Your task to perform on an android device: Nike Air Max 2020 shoes on Nike.com Image 0: 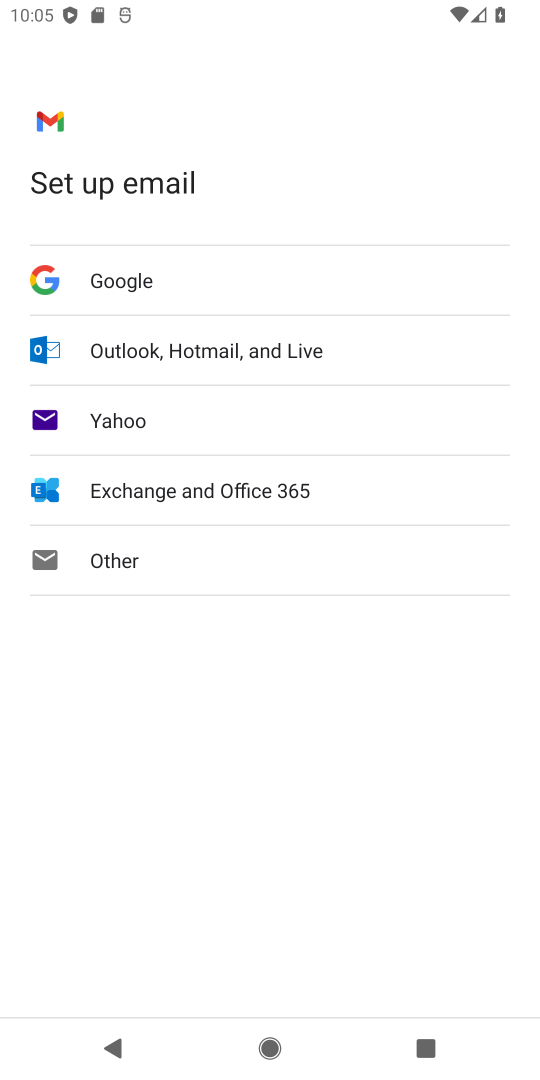
Step 0: press home button
Your task to perform on an android device: Nike Air Max 2020 shoes on Nike.com Image 1: 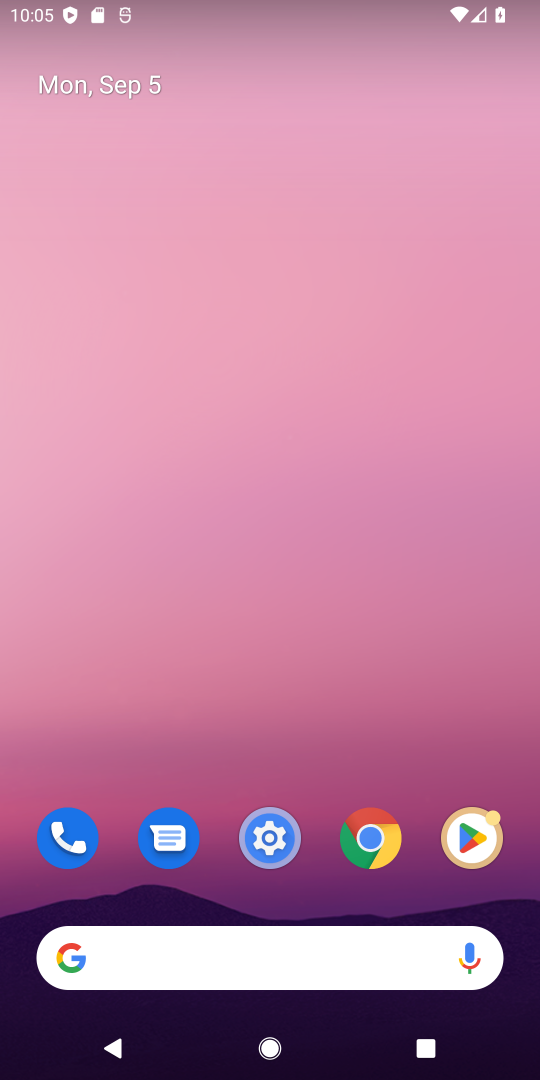
Step 1: click (248, 957)
Your task to perform on an android device: Nike Air Max 2020 shoes on Nike.com Image 2: 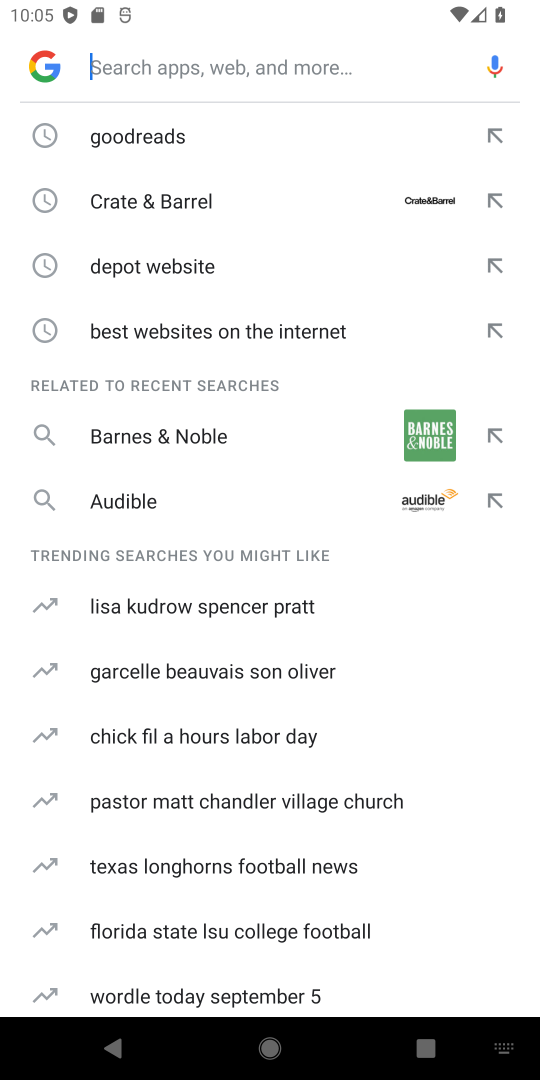
Step 2: type "Nike.com"
Your task to perform on an android device: Nike Air Max 2020 shoes on Nike.com Image 3: 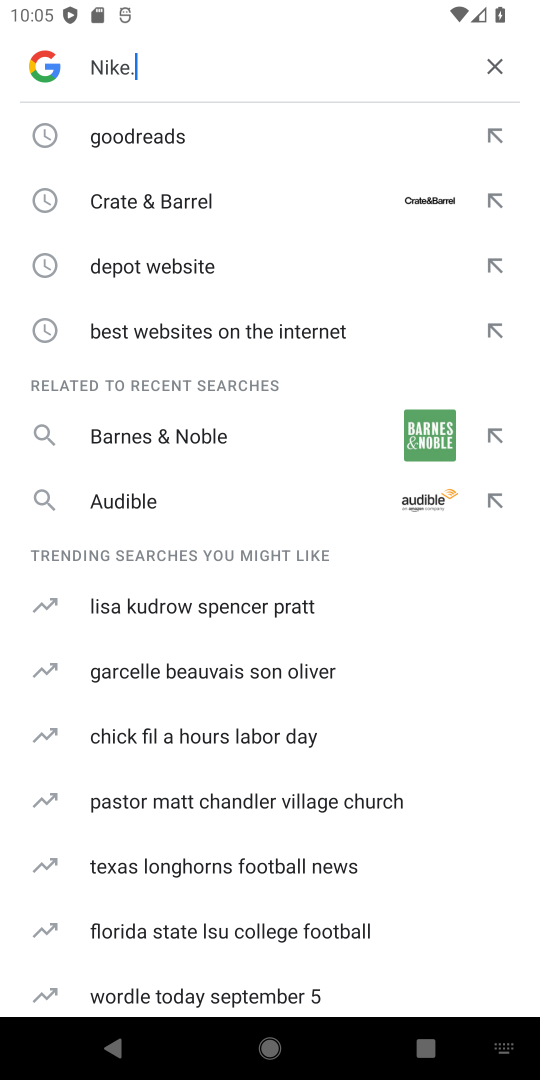
Step 3: type ""
Your task to perform on an android device: Nike Air Max 2020 shoes on Nike.com Image 4: 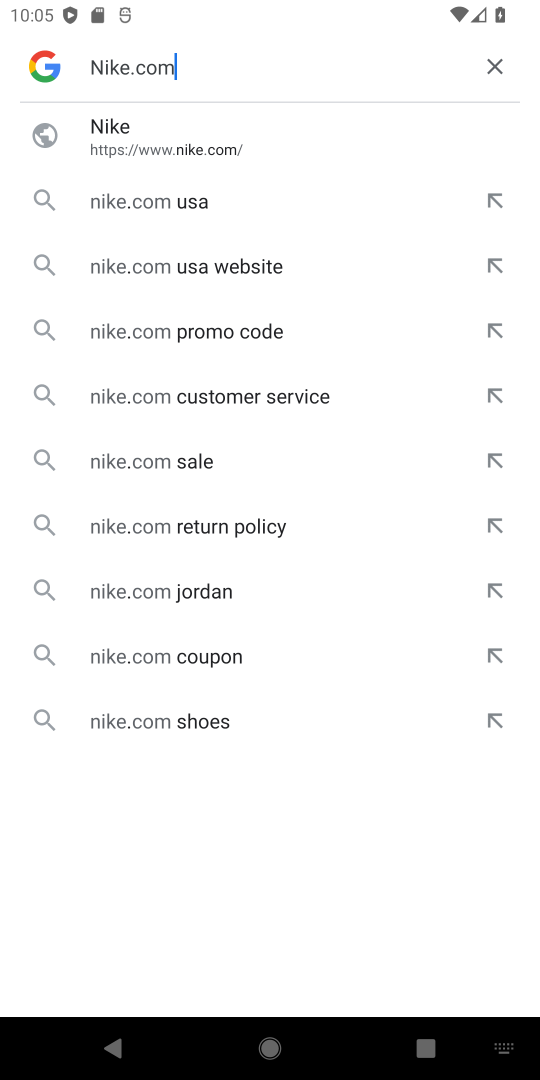
Step 4: click (236, 142)
Your task to perform on an android device: Nike Air Max 2020 shoes on Nike.com Image 5: 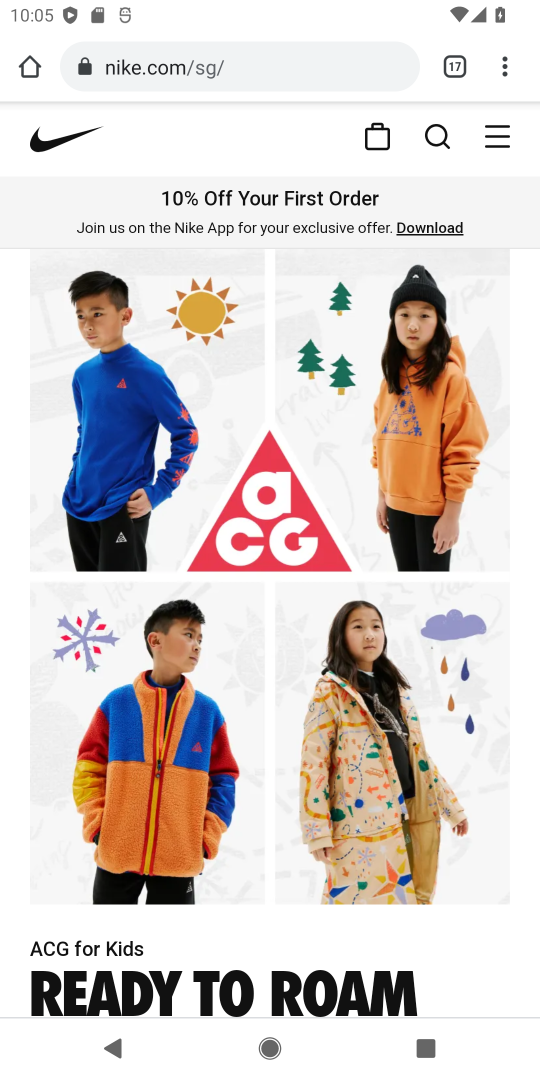
Step 5: click (427, 131)
Your task to perform on an android device: Nike Air Max 2020 shoes on Nike.com Image 6: 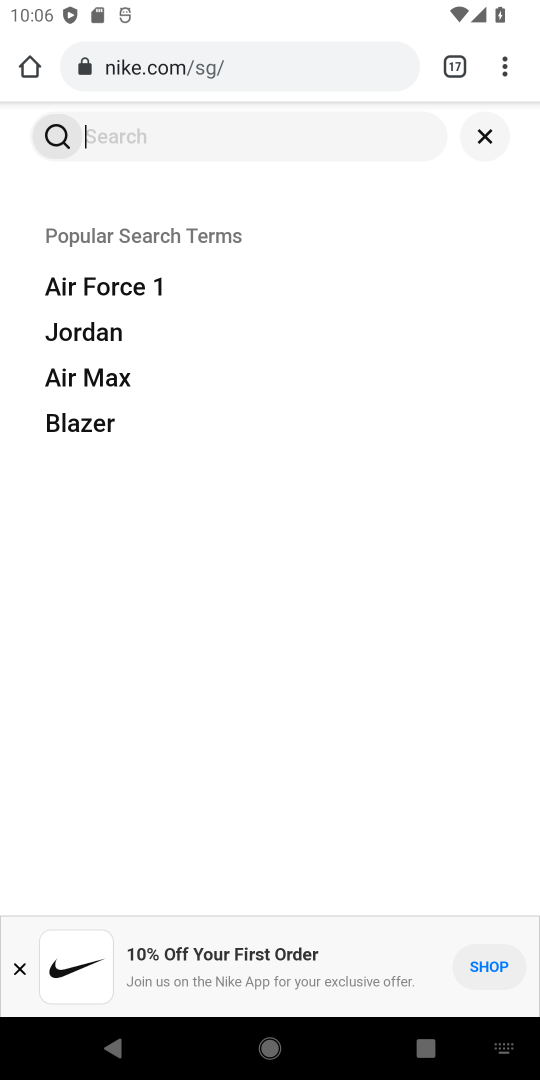
Step 6: type "Air Max 2020 "
Your task to perform on an android device: Nike Air Max 2020 shoes on Nike.com Image 7: 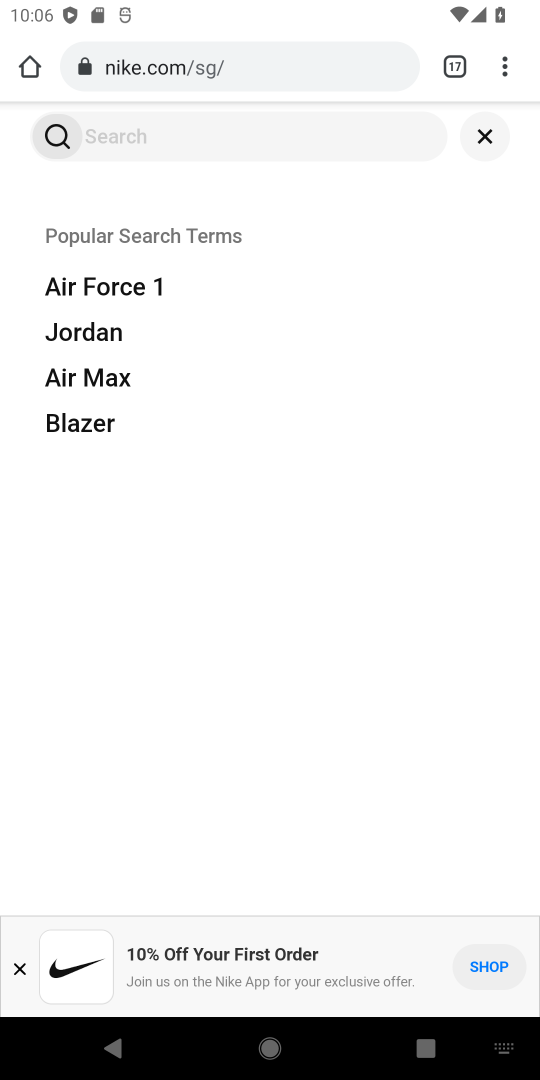
Step 7: type ""
Your task to perform on an android device: Nike Air Max 2020 shoes on Nike.com Image 8: 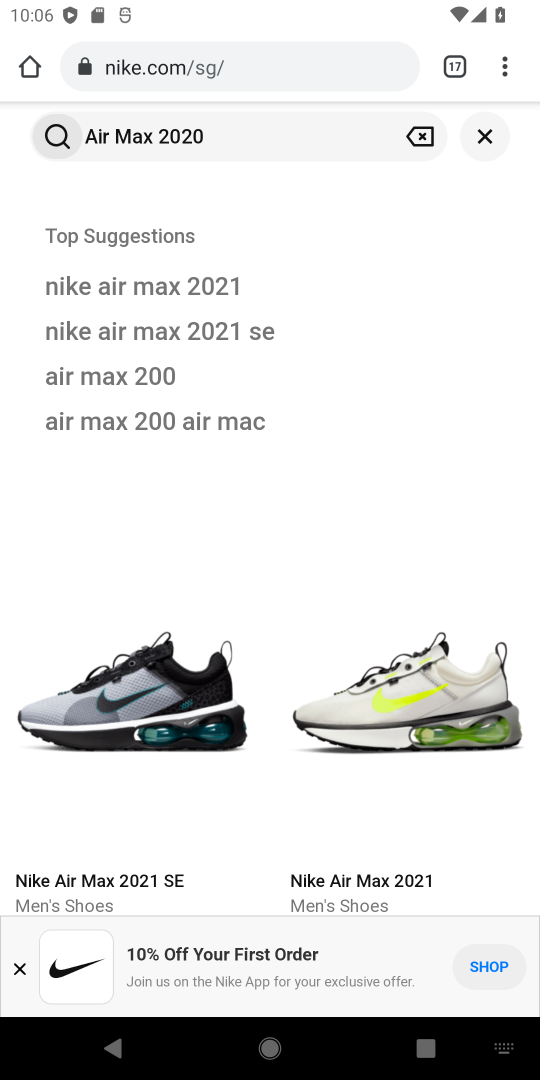
Step 8: click (170, 370)
Your task to perform on an android device: Nike Air Max 2020 shoes on Nike.com Image 9: 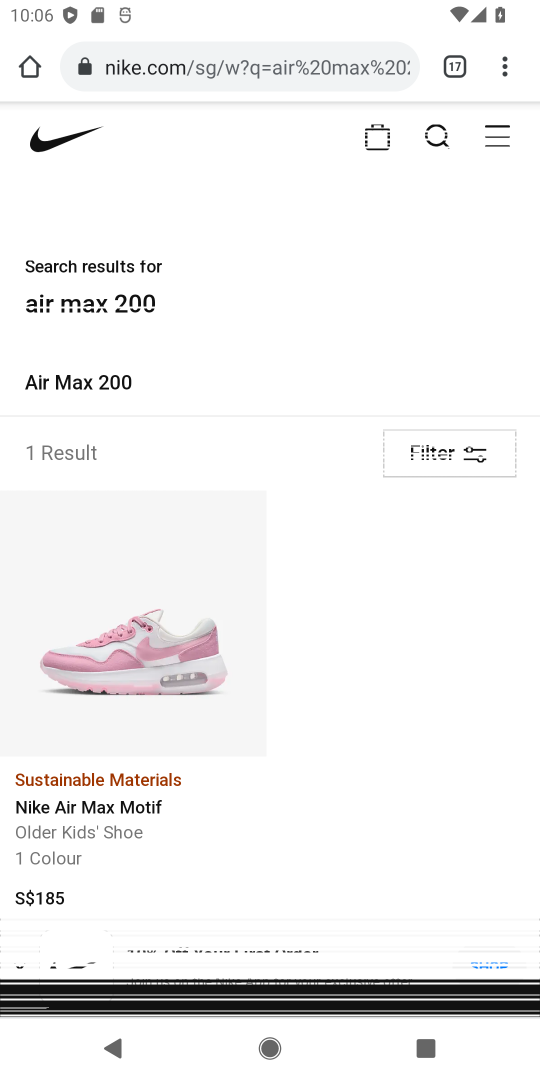
Step 9: task complete